Your task to perform on an android device: check storage Image 0: 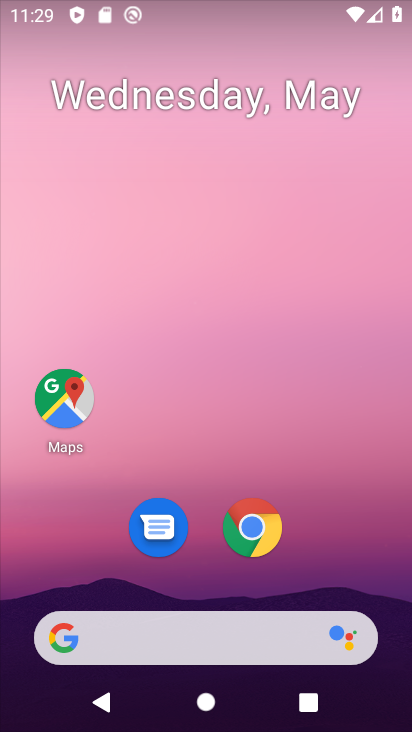
Step 0: drag from (376, 560) to (337, 37)
Your task to perform on an android device: check storage Image 1: 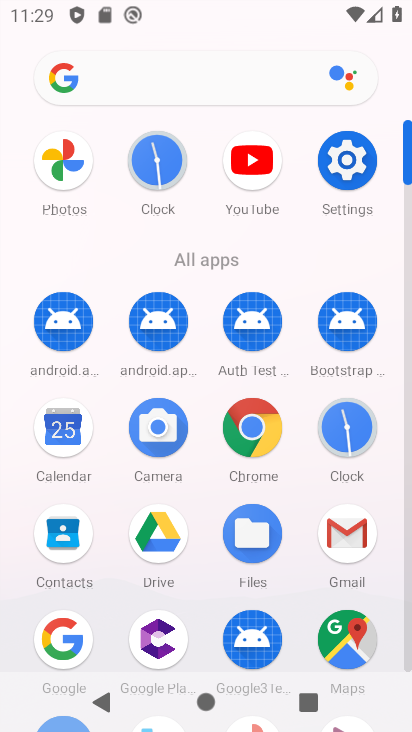
Step 1: click (355, 167)
Your task to perform on an android device: check storage Image 2: 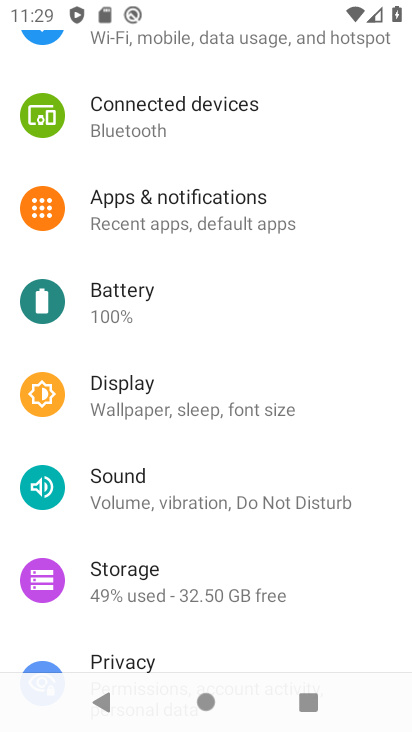
Step 2: click (248, 589)
Your task to perform on an android device: check storage Image 3: 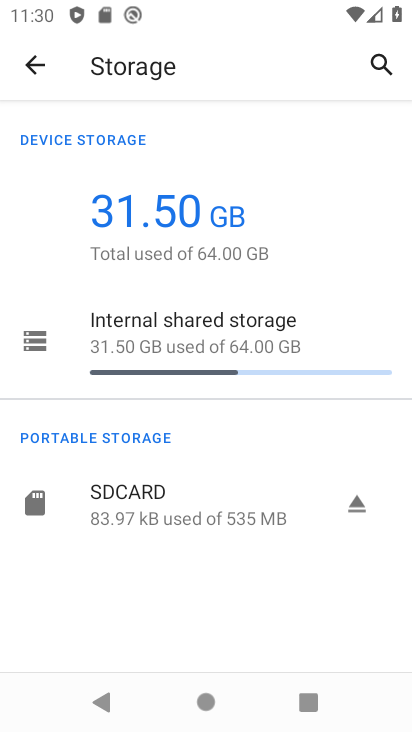
Step 3: task complete